Your task to perform on an android device: open chrome privacy settings Image 0: 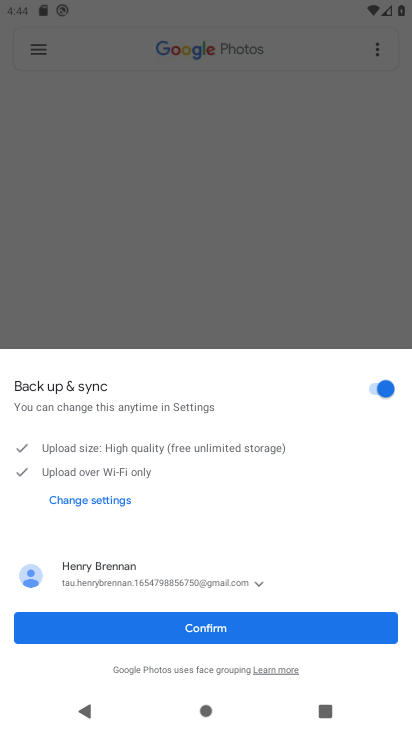
Step 0: press home button
Your task to perform on an android device: open chrome privacy settings Image 1: 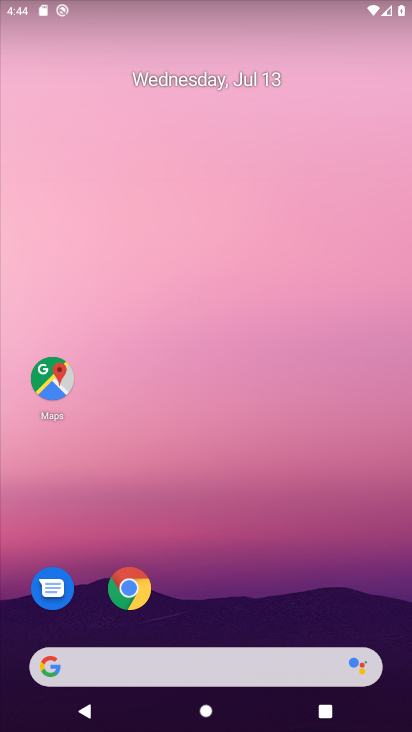
Step 1: drag from (260, 555) to (370, 108)
Your task to perform on an android device: open chrome privacy settings Image 2: 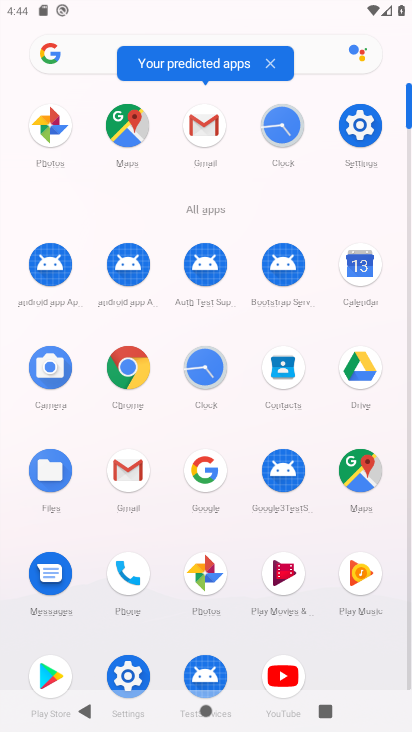
Step 2: click (122, 351)
Your task to perform on an android device: open chrome privacy settings Image 3: 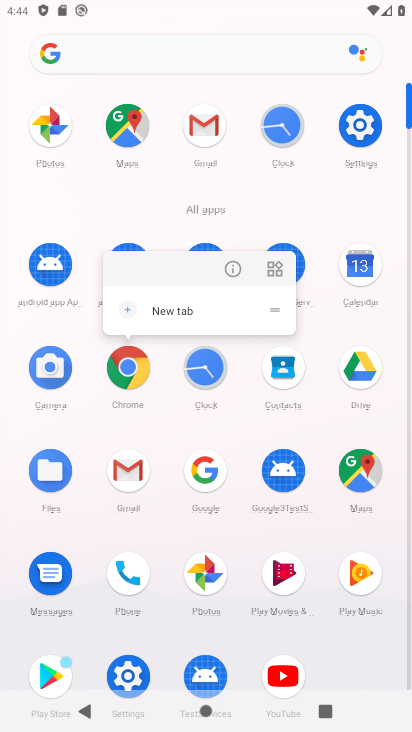
Step 3: click (124, 368)
Your task to perform on an android device: open chrome privacy settings Image 4: 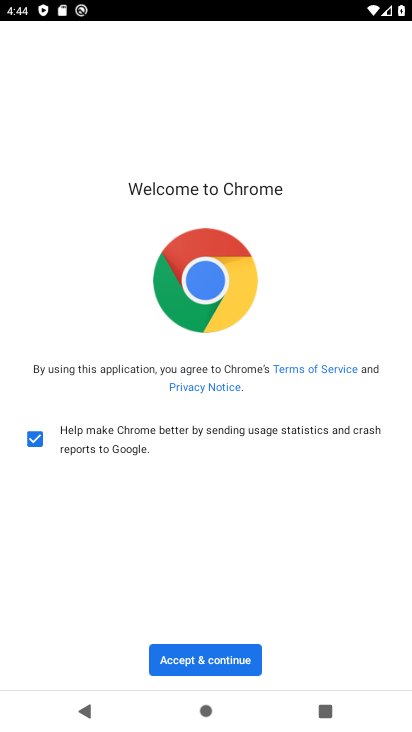
Step 4: click (209, 645)
Your task to perform on an android device: open chrome privacy settings Image 5: 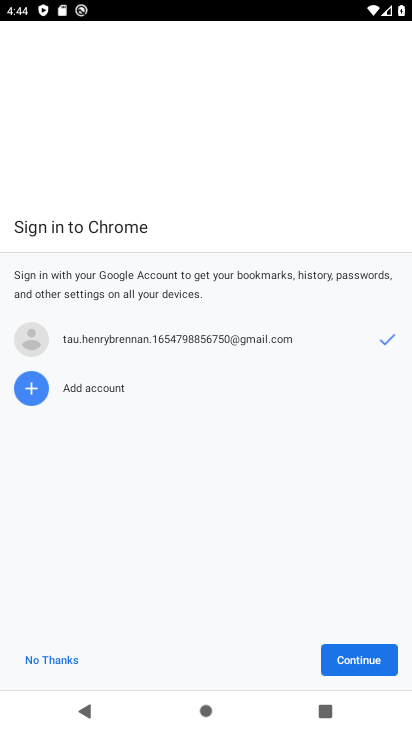
Step 5: click (348, 649)
Your task to perform on an android device: open chrome privacy settings Image 6: 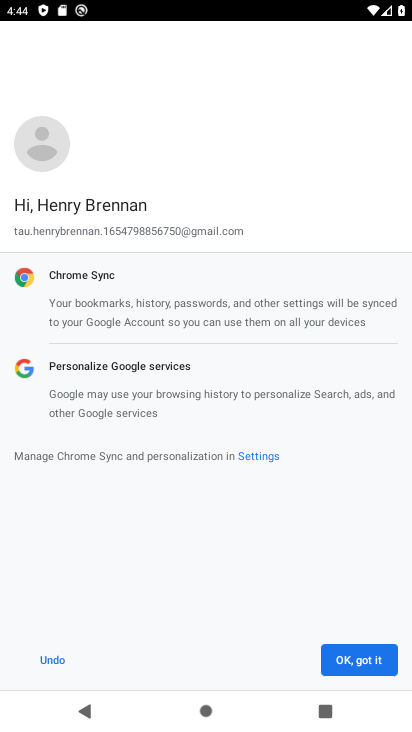
Step 6: click (348, 649)
Your task to perform on an android device: open chrome privacy settings Image 7: 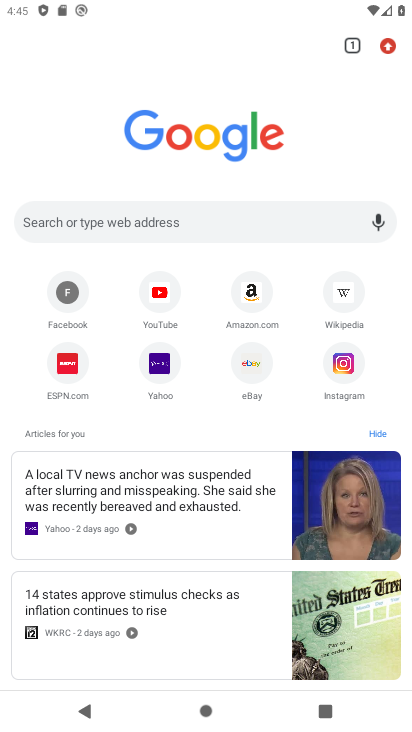
Step 7: drag from (384, 50) to (229, 430)
Your task to perform on an android device: open chrome privacy settings Image 8: 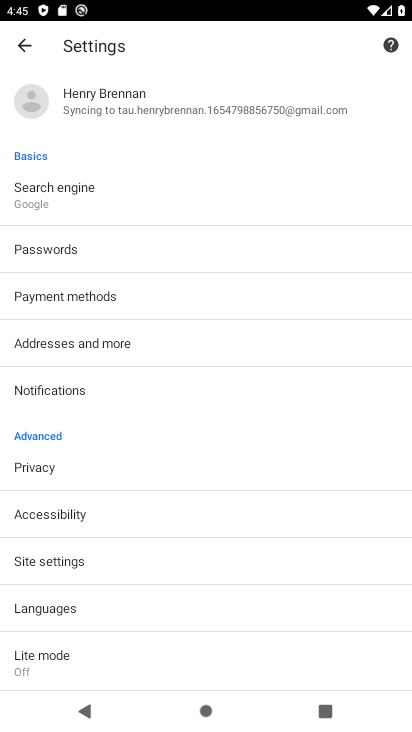
Step 8: click (51, 463)
Your task to perform on an android device: open chrome privacy settings Image 9: 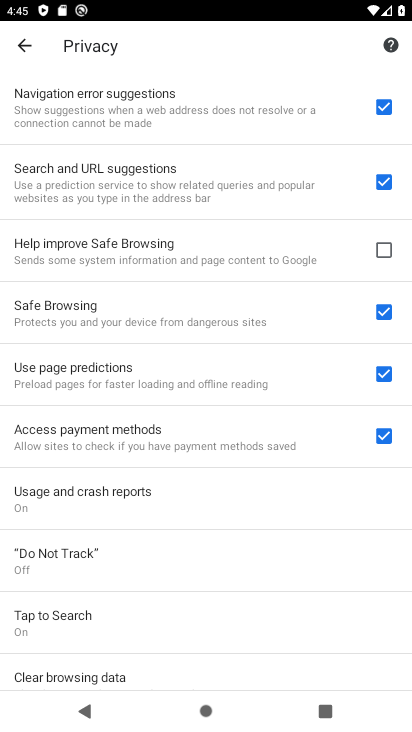
Step 9: task complete